Your task to perform on an android device: change the clock style Image 0: 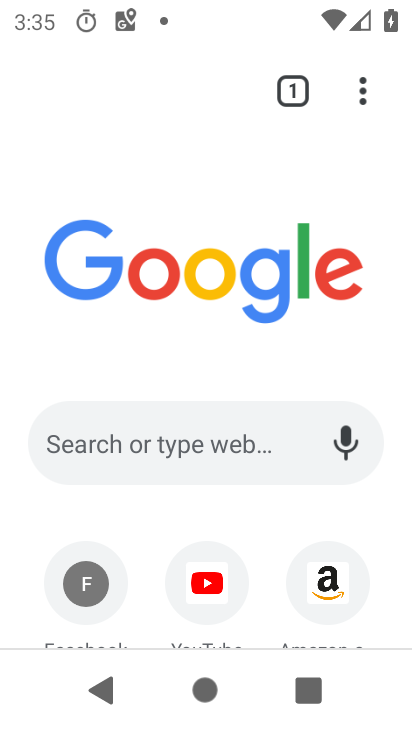
Step 0: press home button
Your task to perform on an android device: change the clock style Image 1: 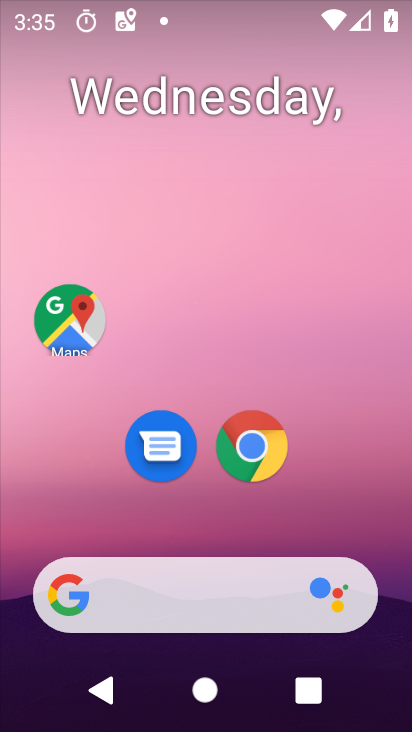
Step 1: drag from (204, 518) to (223, 65)
Your task to perform on an android device: change the clock style Image 2: 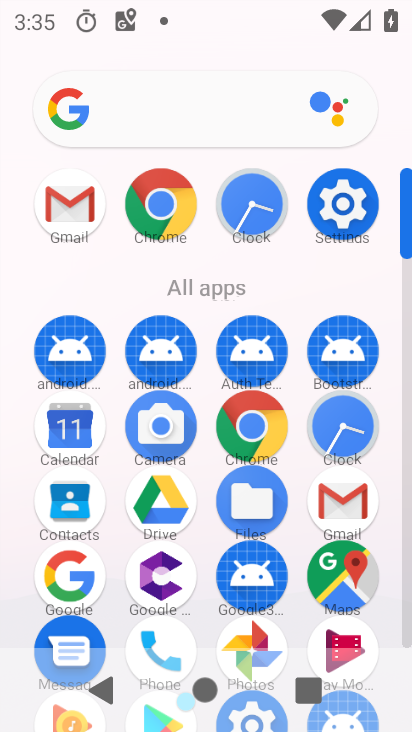
Step 2: click (344, 428)
Your task to perform on an android device: change the clock style Image 3: 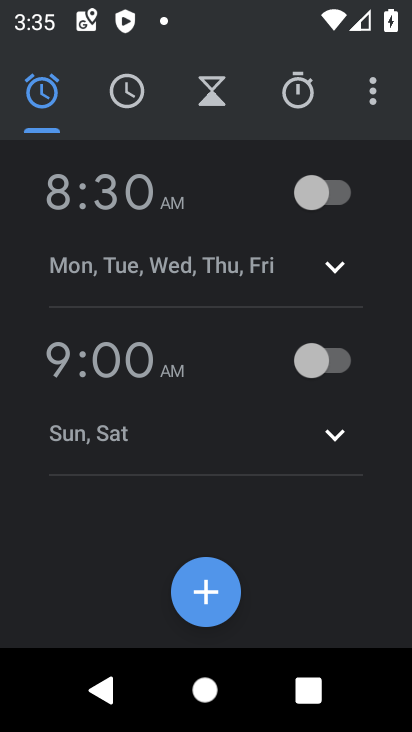
Step 3: click (361, 105)
Your task to perform on an android device: change the clock style Image 4: 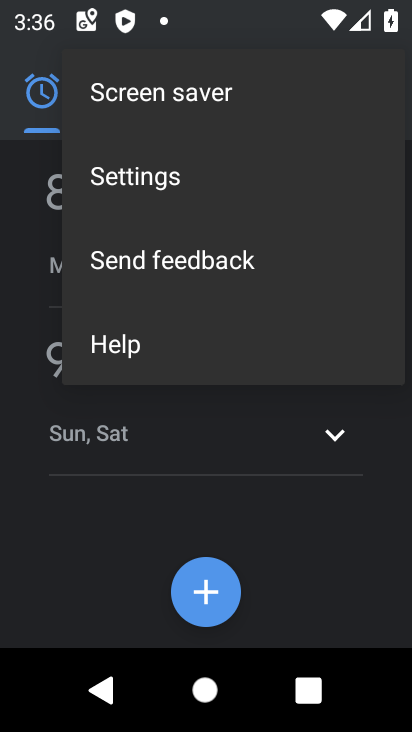
Step 4: click (216, 157)
Your task to perform on an android device: change the clock style Image 5: 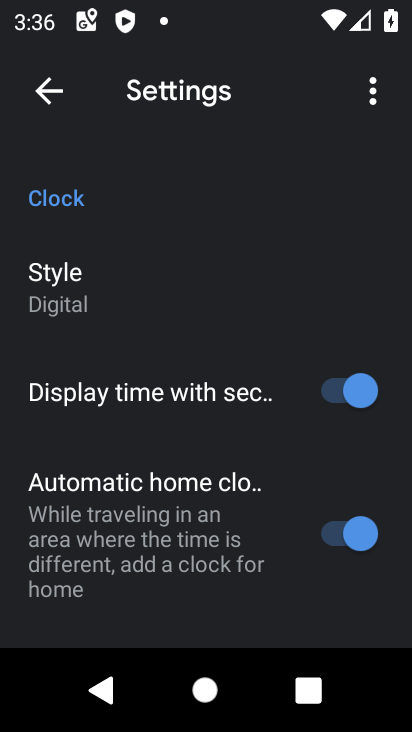
Step 5: click (134, 281)
Your task to perform on an android device: change the clock style Image 6: 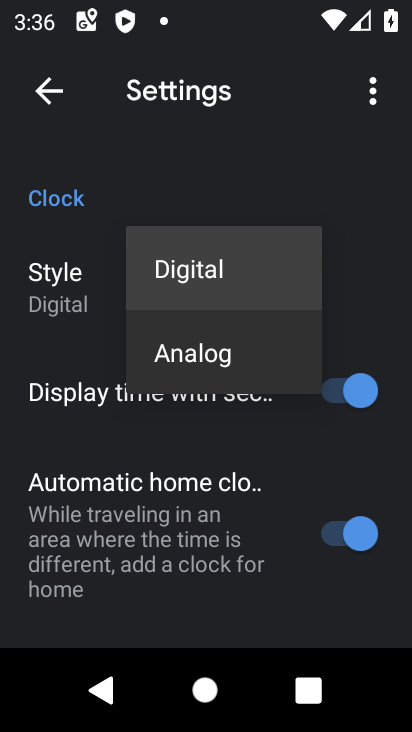
Step 6: click (200, 345)
Your task to perform on an android device: change the clock style Image 7: 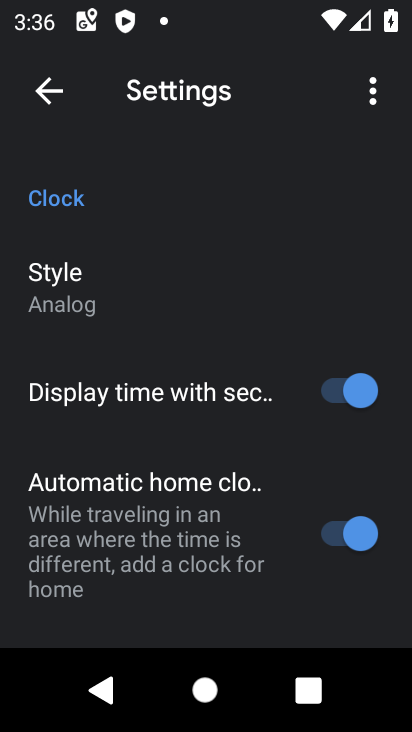
Step 7: task complete